Your task to perform on an android device: turn off javascript in the chrome app Image 0: 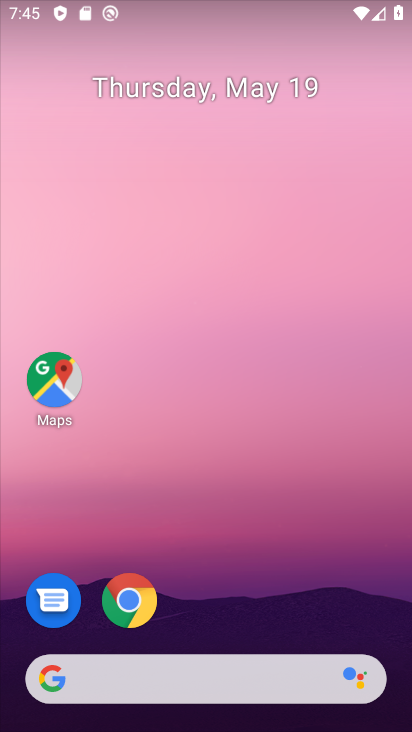
Step 0: drag from (376, 582) to (379, 259)
Your task to perform on an android device: turn off javascript in the chrome app Image 1: 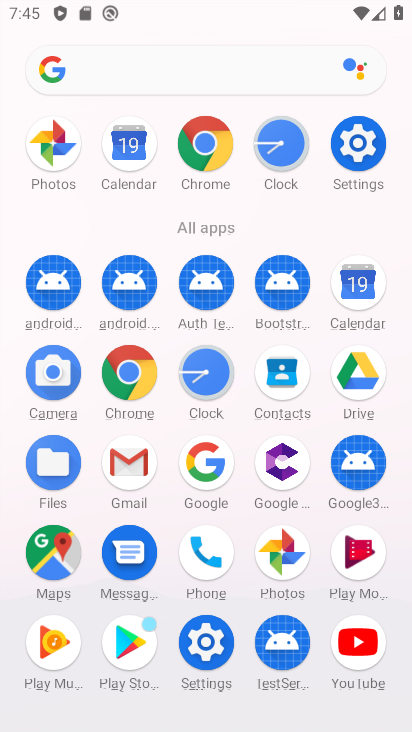
Step 1: click (154, 395)
Your task to perform on an android device: turn off javascript in the chrome app Image 2: 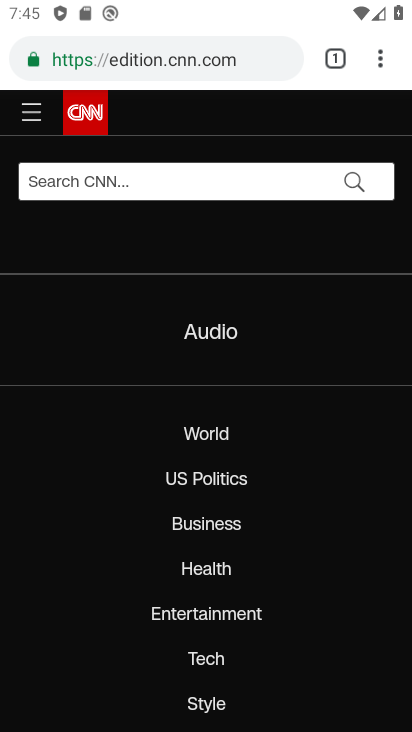
Step 2: click (378, 65)
Your task to perform on an android device: turn off javascript in the chrome app Image 3: 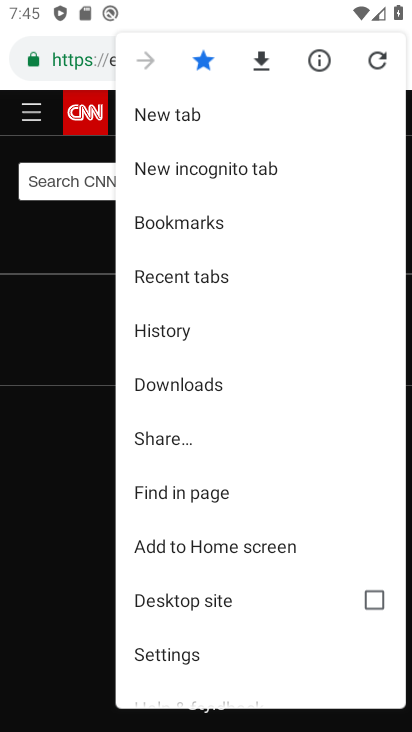
Step 3: drag from (306, 627) to (324, 498)
Your task to perform on an android device: turn off javascript in the chrome app Image 4: 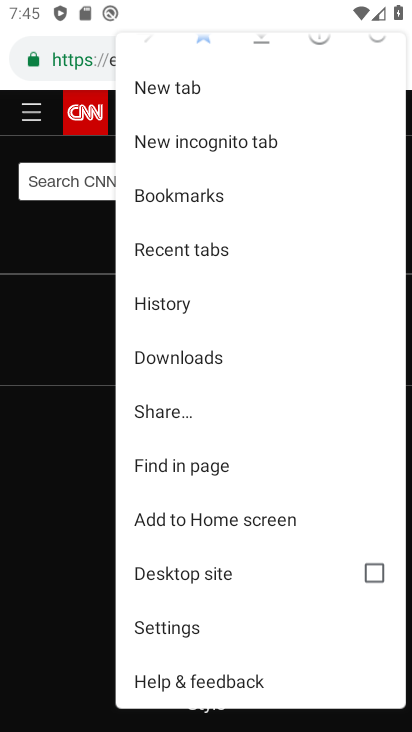
Step 4: click (214, 647)
Your task to perform on an android device: turn off javascript in the chrome app Image 5: 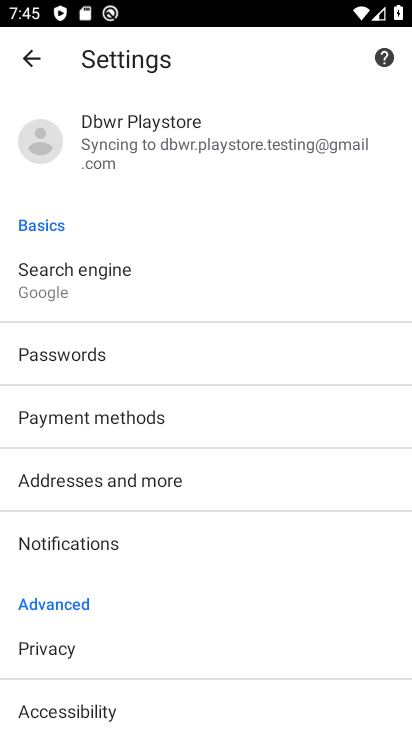
Step 5: drag from (241, 639) to (266, 541)
Your task to perform on an android device: turn off javascript in the chrome app Image 6: 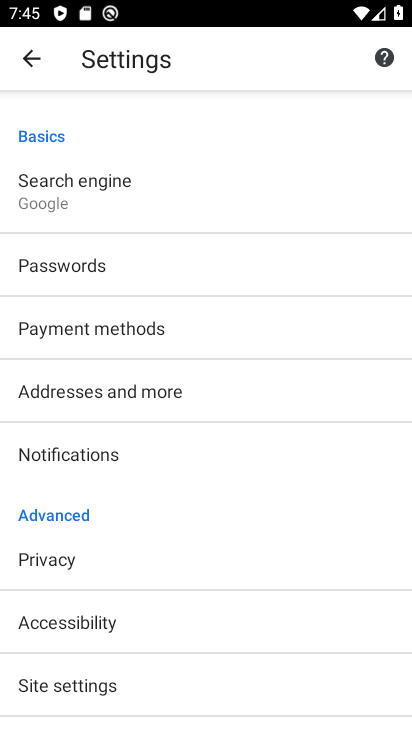
Step 6: drag from (259, 666) to (278, 555)
Your task to perform on an android device: turn off javascript in the chrome app Image 7: 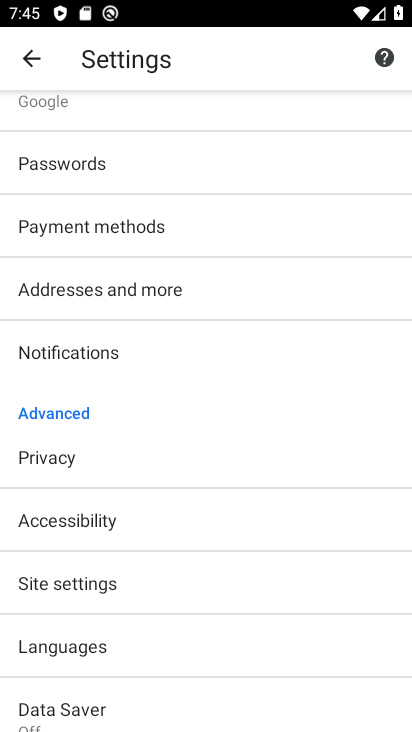
Step 7: drag from (268, 678) to (264, 574)
Your task to perform on an android device: turn off javascript in the chrome app Image 8: 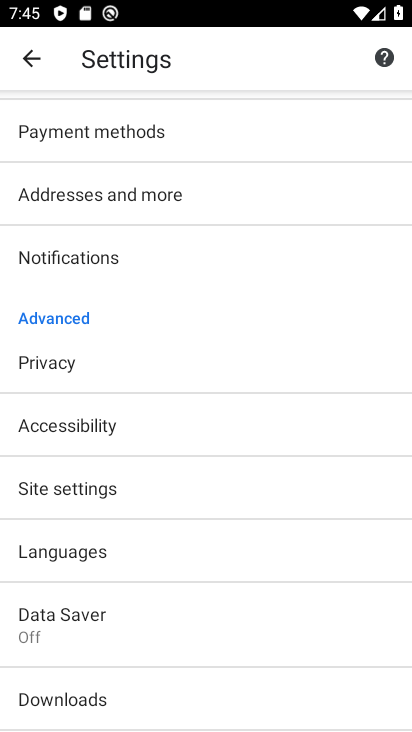
Step 8: drag from (261, 664) to (261, 557)
Your task to perform on an android device: turn off javascript in the chrome app Image 9: 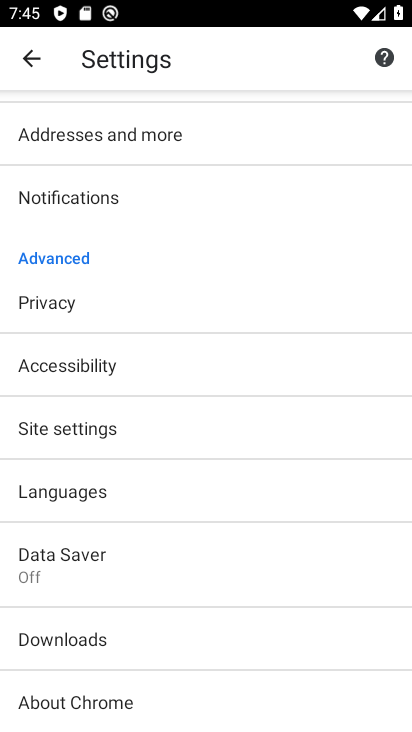
Step 9: drag from (271, 689) to (276, 604)
Your task to perform on an android device: turn off javascript in the chrome app Image 10: 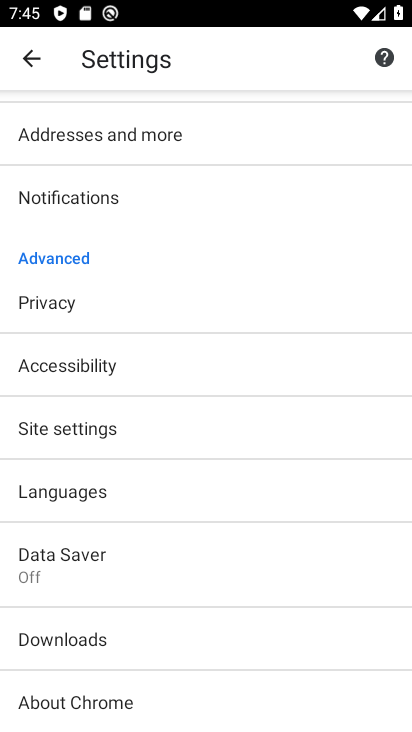
Step 10: drag from (281, 397) to (287, 469)
Your task to perform on an android device: turn off javascript in the chrome app Image 11: 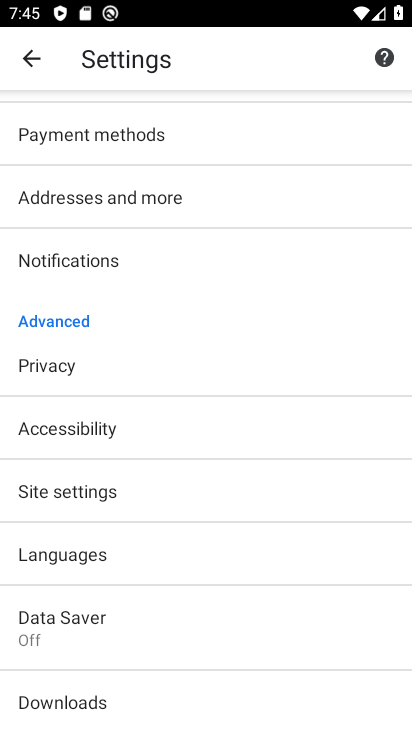
Step 11: drag from (287, 390) to (292, 493)
Your task to perform on an android device: turn off javascript in the chrome app Image 12: 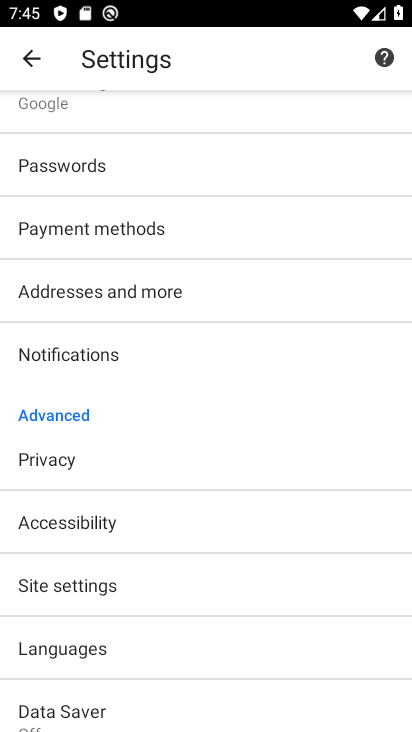
Step 12: drag from (315, 358) to (318, 485)
Your task to perform on an android device: turn off javascript in the chrome app Image 13: 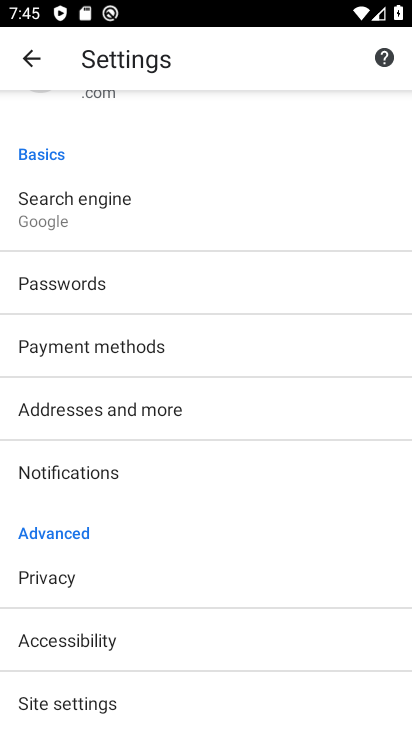
Step 13: drag from (319, 331) to (324, 481)
Your task to perform on an android device: turn off javascript in the chrome app Image 14: 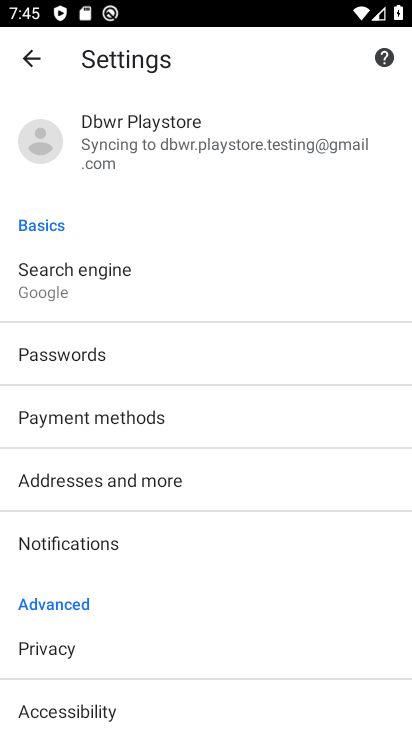
Step 14: drag from (297, 356) to (293, 517)
Your task to perform on an android device: turn off javascript in the chrome app Image 15: 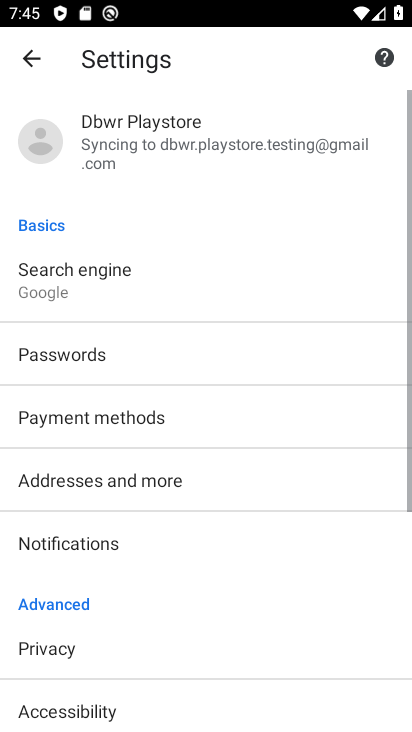
Step 15: drag from (297, 554) to (295, 446)
Your task to perform on an android device: turn off javascript in the chrome app Image 16: 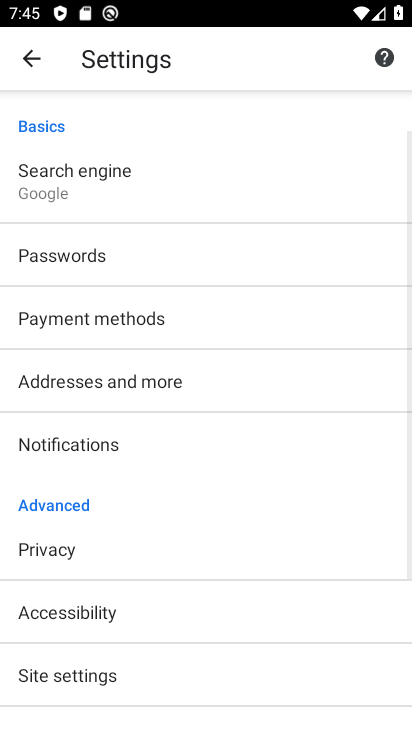
Step 16: drag from (278, 553) to (295, 454)
Your task to perform on an android device: turn off javascript in the chrome app Image 17: 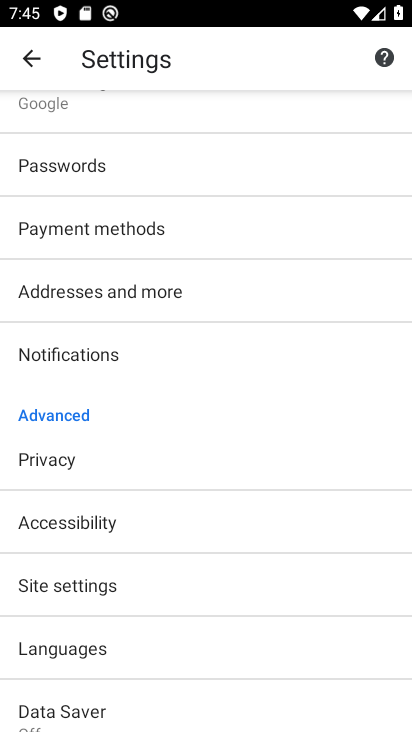
Step 17: drag from (280, 577) to (281, 458)
Your task to perform on an android device: turn off javascript in the chrome app Image 18: 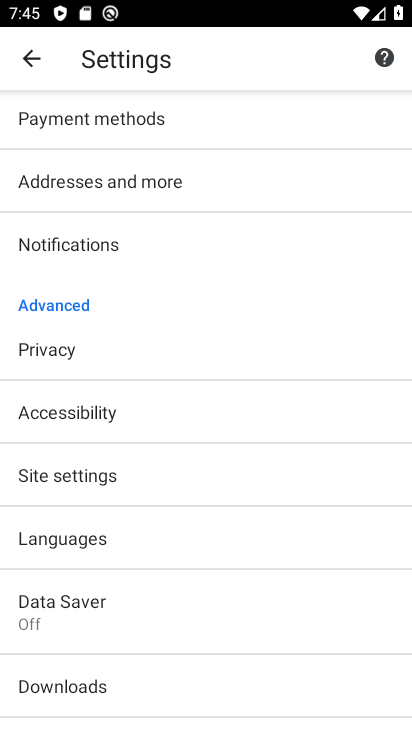
Step 18: click (265, 491)
Your task to perform on an android device: turn off javascript in the chrome app Image 19: 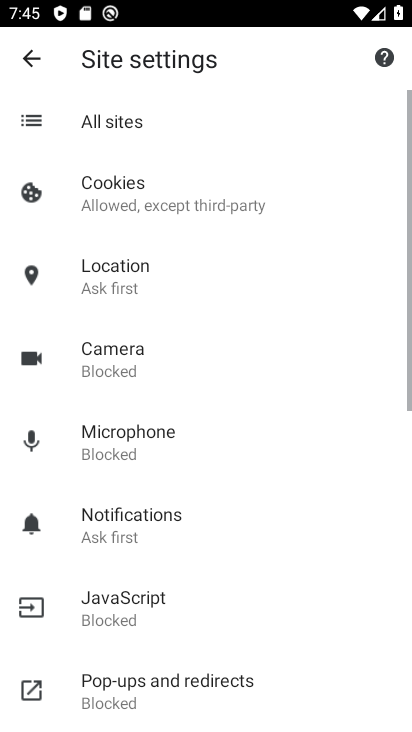
Step 19: drag from (265, 600) to (266, 517)
Your task to perform on an android device: turn off javascript in the chrome app Image 20: 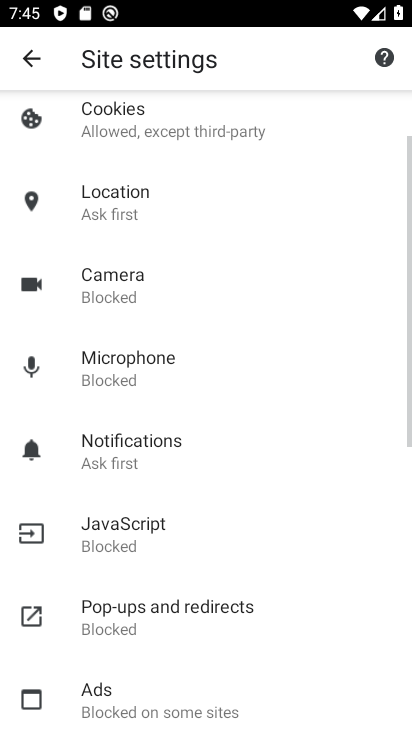
Step 20: drag from (283, 630) to (292, 518)
Your task to perform on an android device: turn off javascript in the chrome app Image 21: 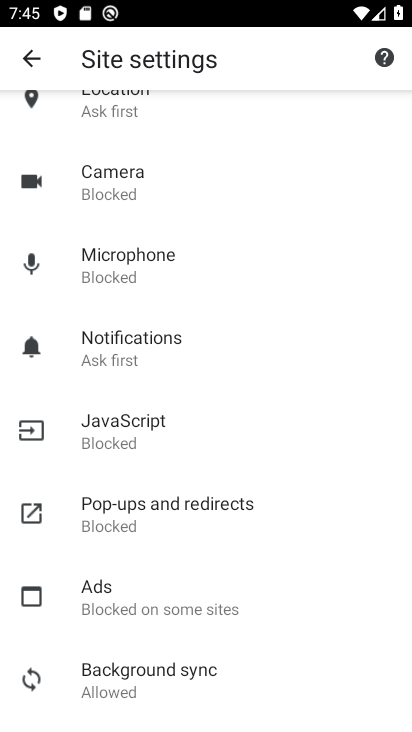
Step 21: drag from (296, 641) to (287, 558)
Your task to perform on an android device: turn off javascript in the chrome app Image 22: 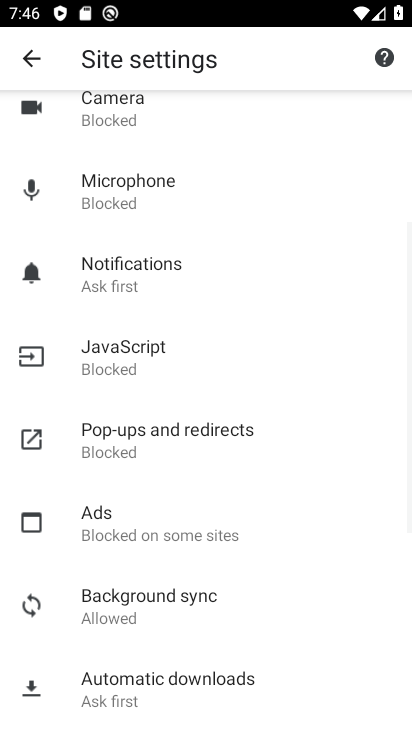
Step 22: drag from (298, 679) to (302, 576)
Your task to perform on an android device: turn off javascript in the chrome app Image 23: 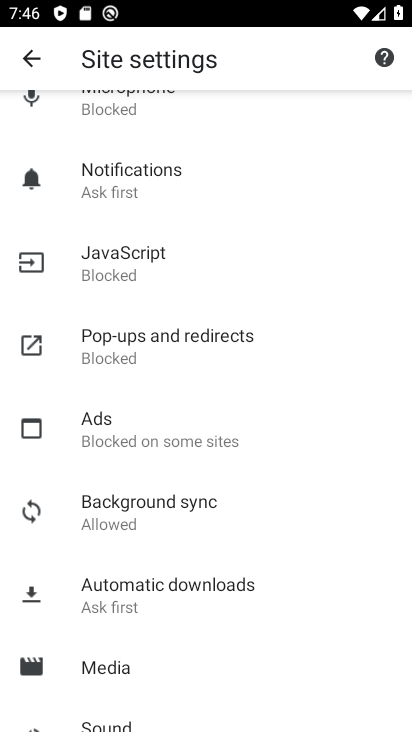
Step 23: drag from (299, 682) to (298, 569)
Your task to perform on an android device: turn off javascript in the chrome app Image 24: 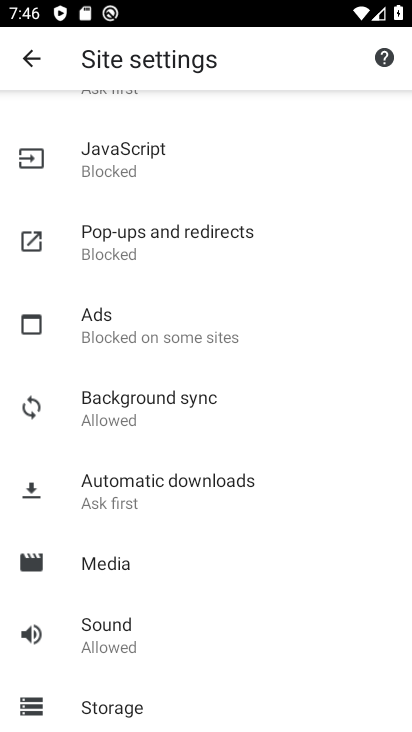
Step 24: drag from (299, 694) to (300, 572)
Your task to perform on an android device: turn off javascript in the chrome app Image 25: 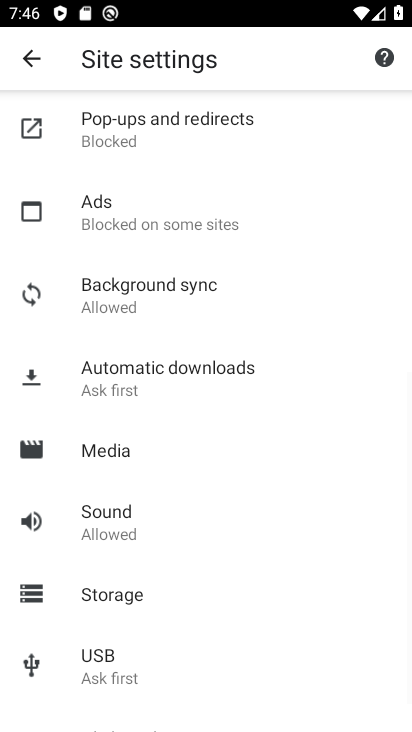
Step 25: drag from (292, 671) to (294, 556)
Your task to perform on an android device: turn off javascript in the chrome app Image 26: 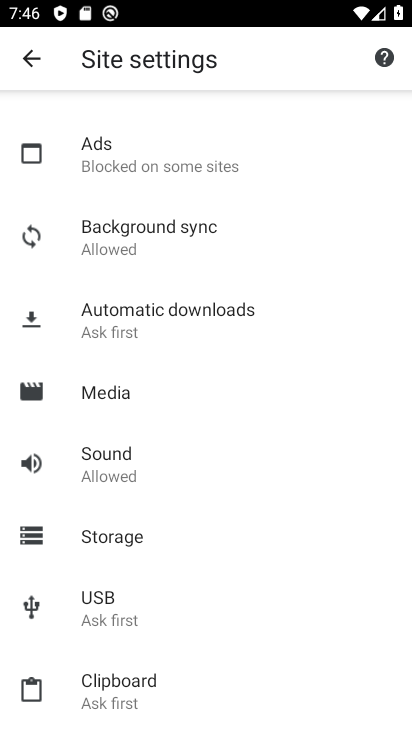
Step 26: drag from (285, 377) to (288, 450)
Your task to perform on an android device: turn off javascript in the chrome app Image 27: 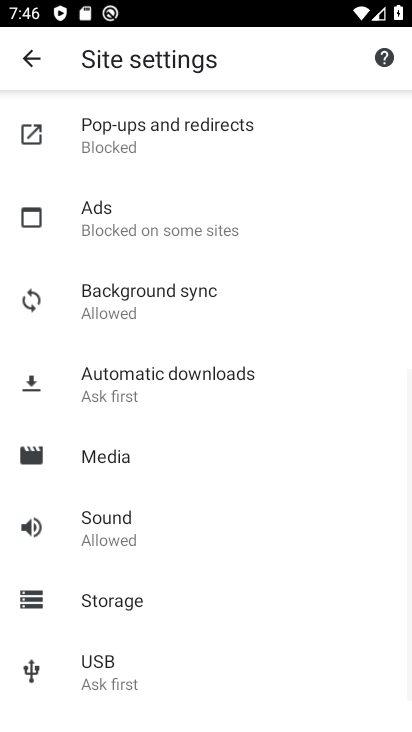
Step 27: drag from (311, 355) to (322, 456)
Your task to perform on an android device: turn off javascript in the chrome app Image 28: 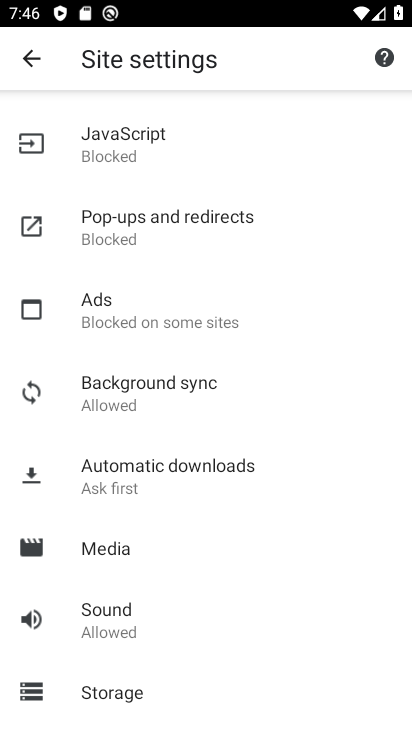
Step 28: drag from (307, 380) to (311, 442)
Your task to perform on an android device: turn off javascript in the chrome app Image 29: 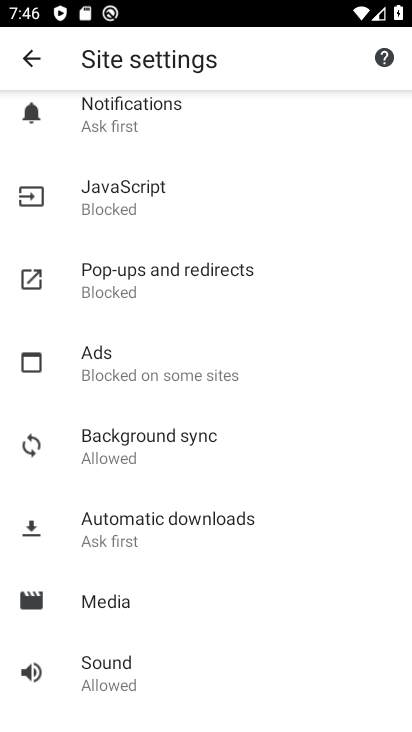
Step 29: drag from (309, 371) to (316, 453)
Your task to perform on an android device: turn off javascript in the chrome app Image 30: 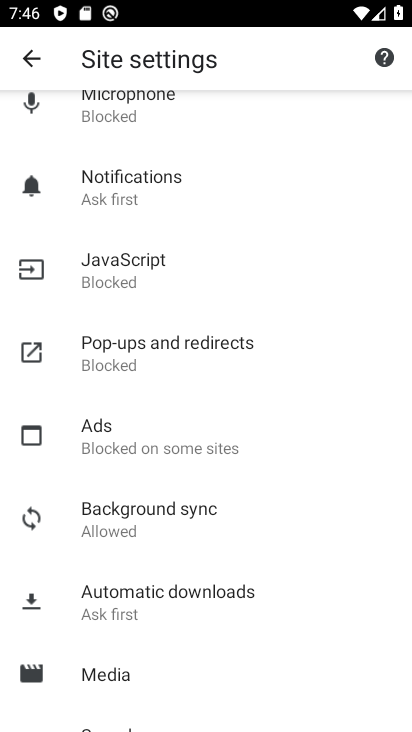
Step 30: drag from (306, 327) to (308, 425)
Your task to perform on an android device: turn off javascript in the chrome app Image 31: 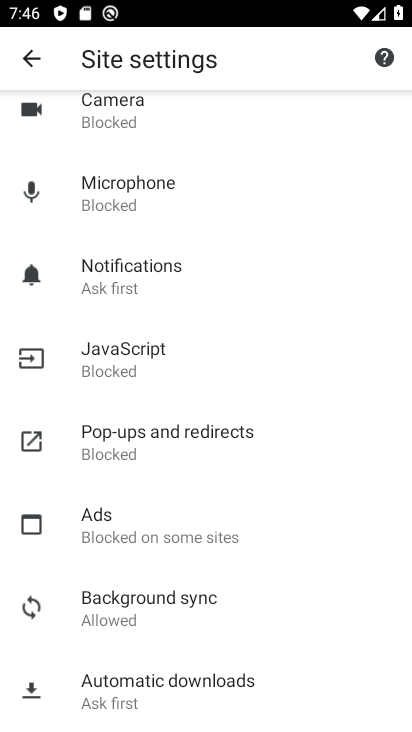
Step 31: drag from (300, 340) to (306, 422)
Your task to perform on an android device: turn off javascript in the chrome app Image 32: 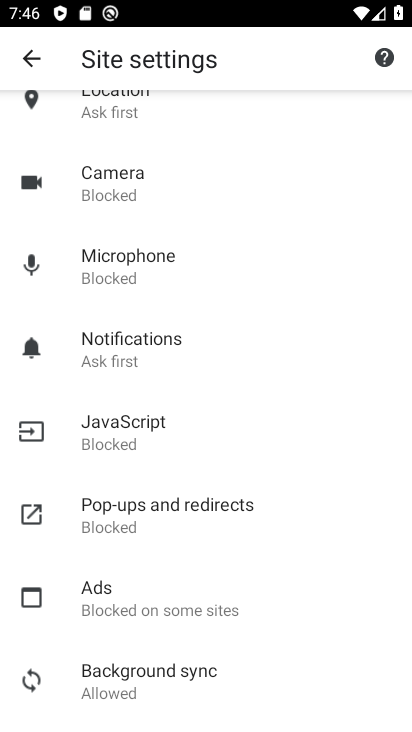
Step 32: click (124, 442)
Your task to perform on an android device: turn off javascript in the chrome app Image 33: 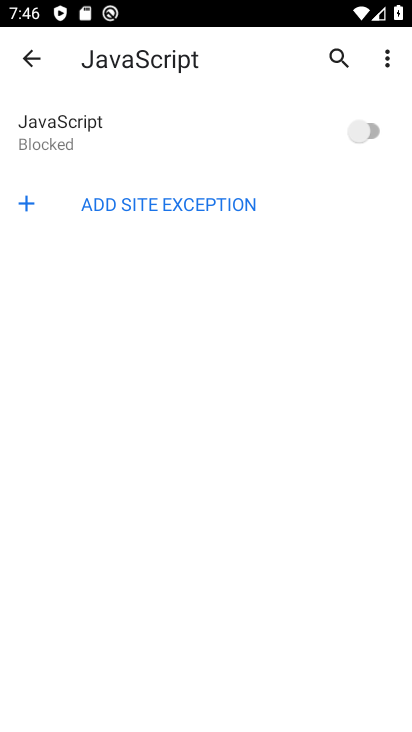
Step 33: task complete